Your task to perform on an android device: What's the weather today? Image 0: 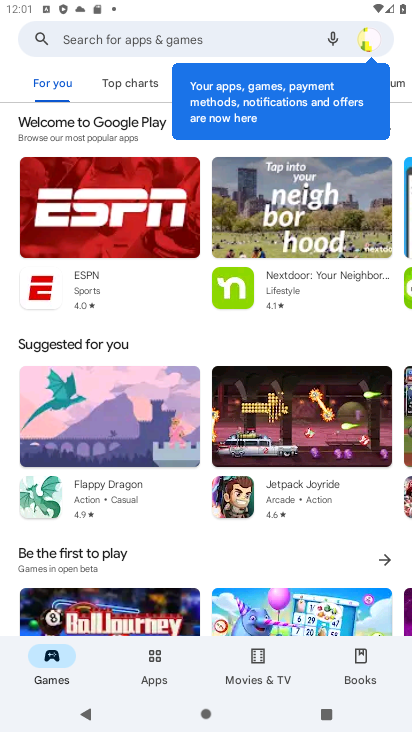
Step 0: task complete